Your task to perform on an android device: When is my next appointment? Image 0: 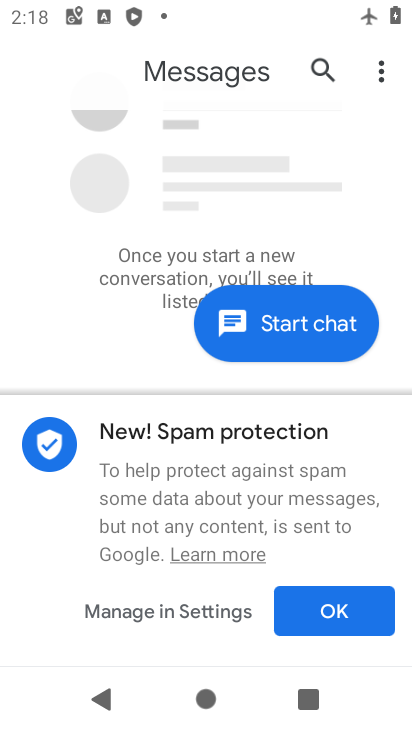
Step 0: press home button
Your task to perform on an android device: When is my next appointment? Image 1: 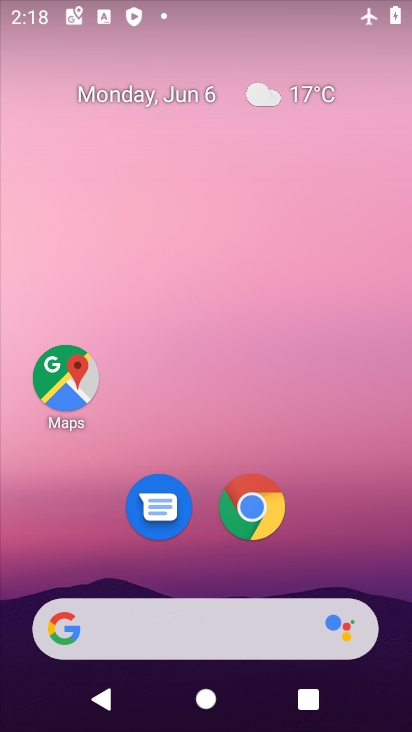
Step 1: drag from (196, 419) to (197, 0)
Your task to perform on an android device: When is my next appointment? Image 2: 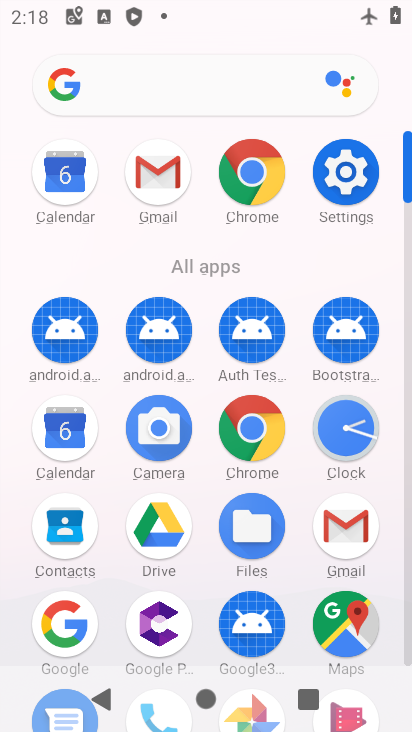
Step 2: click (57, 178)
Your task to perform on an android device: When is my next appointment? Image 3: 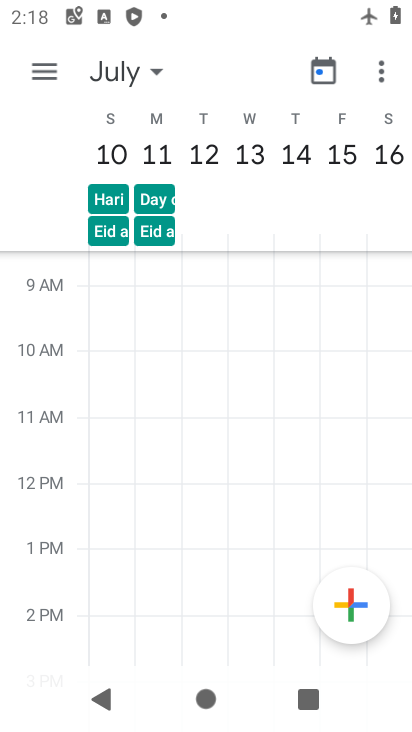
Step 3: click (40, 57)
Your task to perform on an android device: When is my next appointment? Image 4: 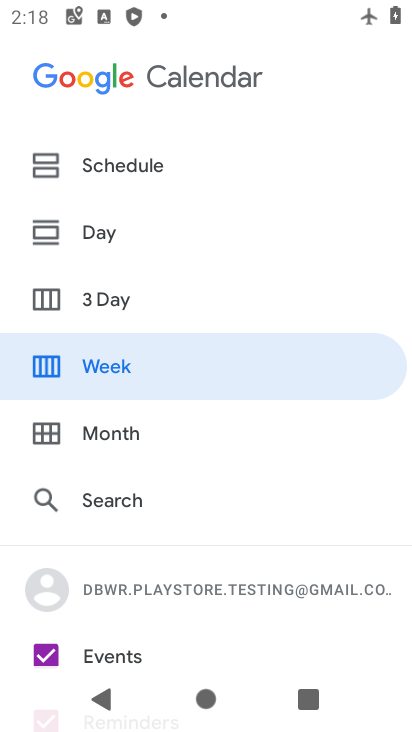
Step 4: click (116, 428)
Your task to perform on an android device: When is my next appointment? Image 5: 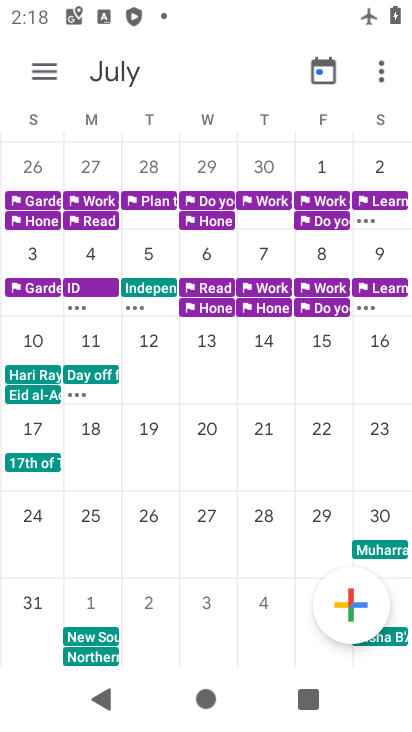
Step 5: drag from (136, 396) to (402, 410)
Your task to perform on an android device: When is my next appointment? Image 6: 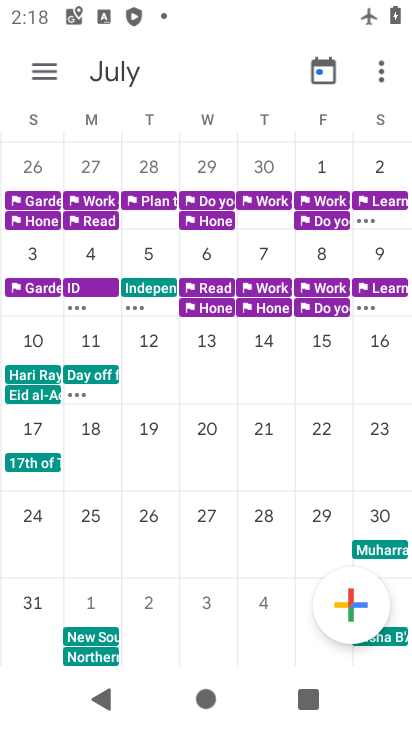
Step 6: drag from (60, 334) to (393, 373)
Your task to perform on an android device: When is my next appointment? Image 7: 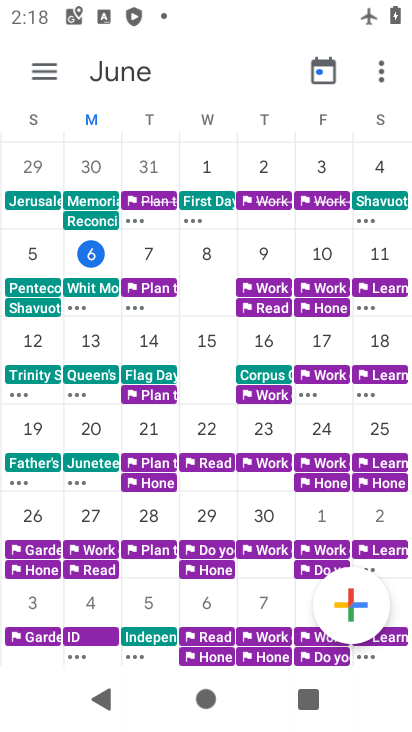
Step 7: click (92, 250)
Your task to perform on an android device: When is my next appointment? Image 8: 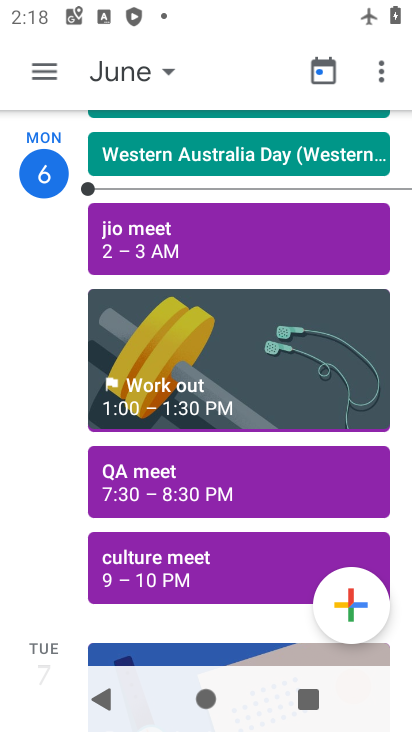
Step 8: task complete